Your task to perform on an android device: open app "Google Drive" (install if not already installed) Image 0: 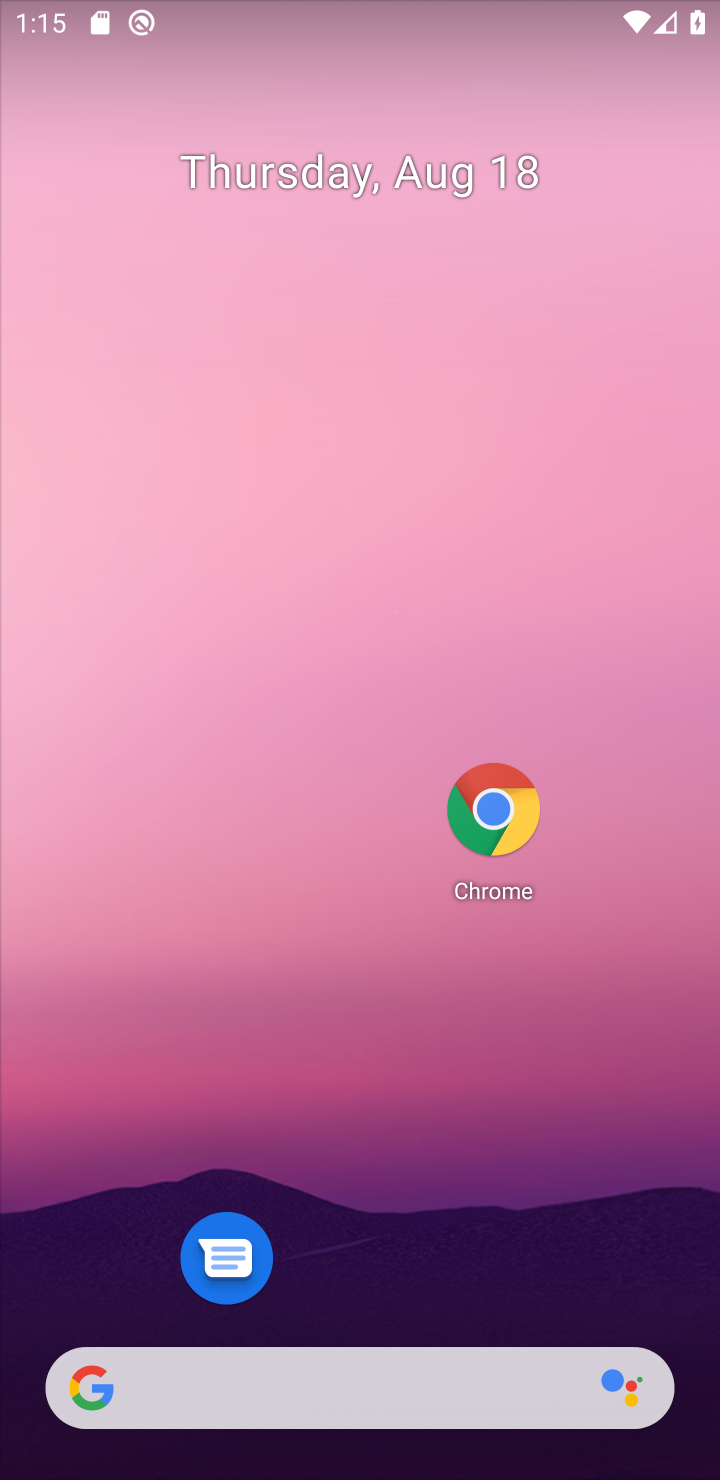
Step 0: drag from (388, 1379) to (396, 741)
Your task to perform on an android device: open app "Google Drive" (install if not already installed) Image 1: 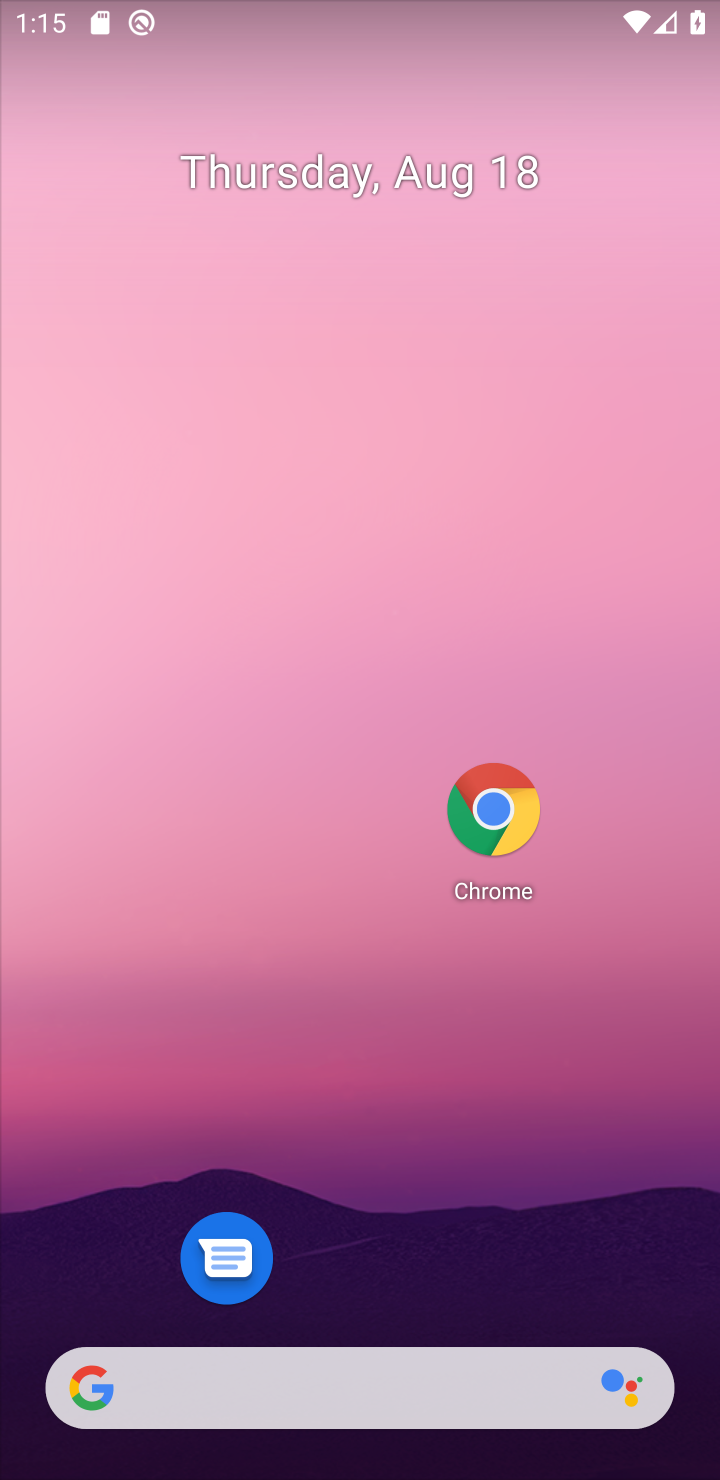
Step 1: drag from (396, 737) to (396, 228)
Your task to perform on an android device: open app "Google Drive" (install if not already installed) Image 2: 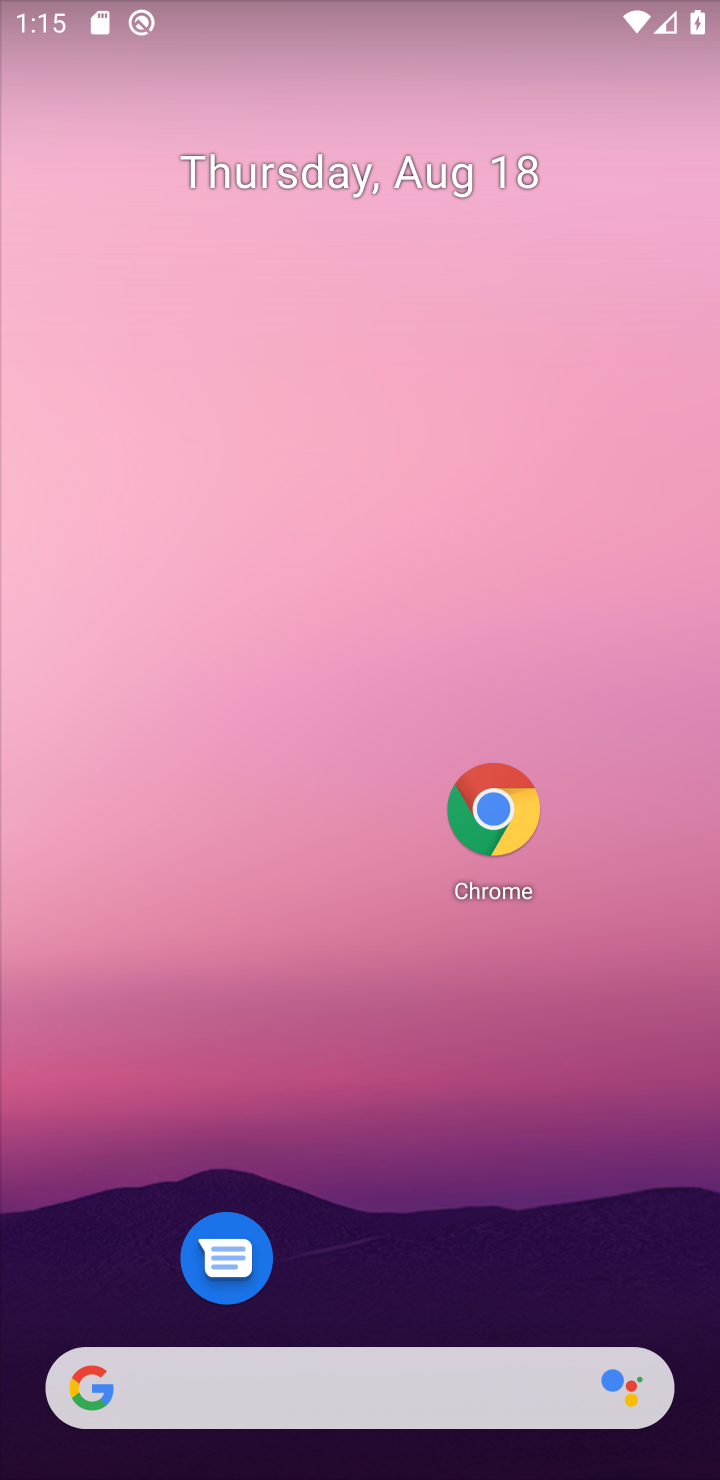
Step 2: drag from (267, 1372) to (513, 175)
Your task to perform on an android device: open app "Google Drive" (install if not already installed) Image 3: 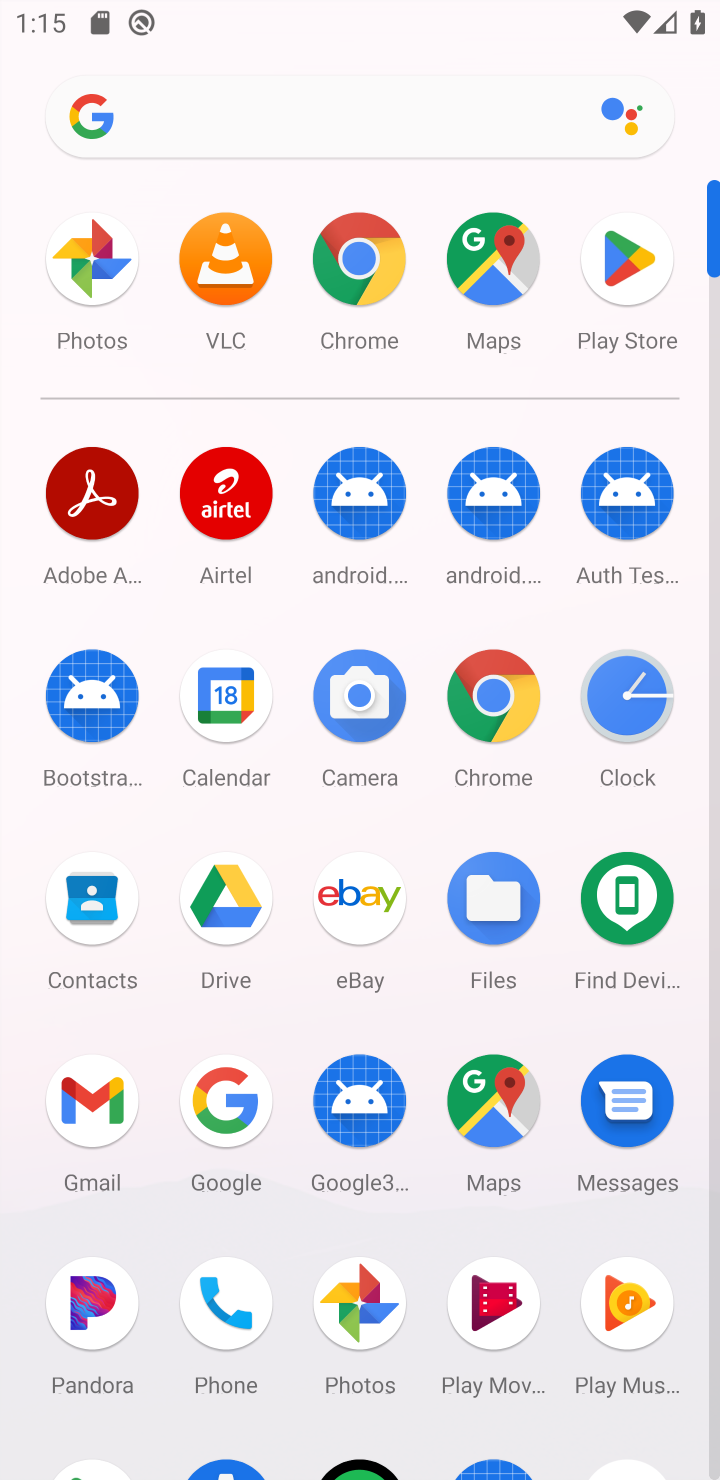
Step 3: click (615, 245)
Your task to perform on an android device: open app "Google Drive" (install if not already installed) Image 4: 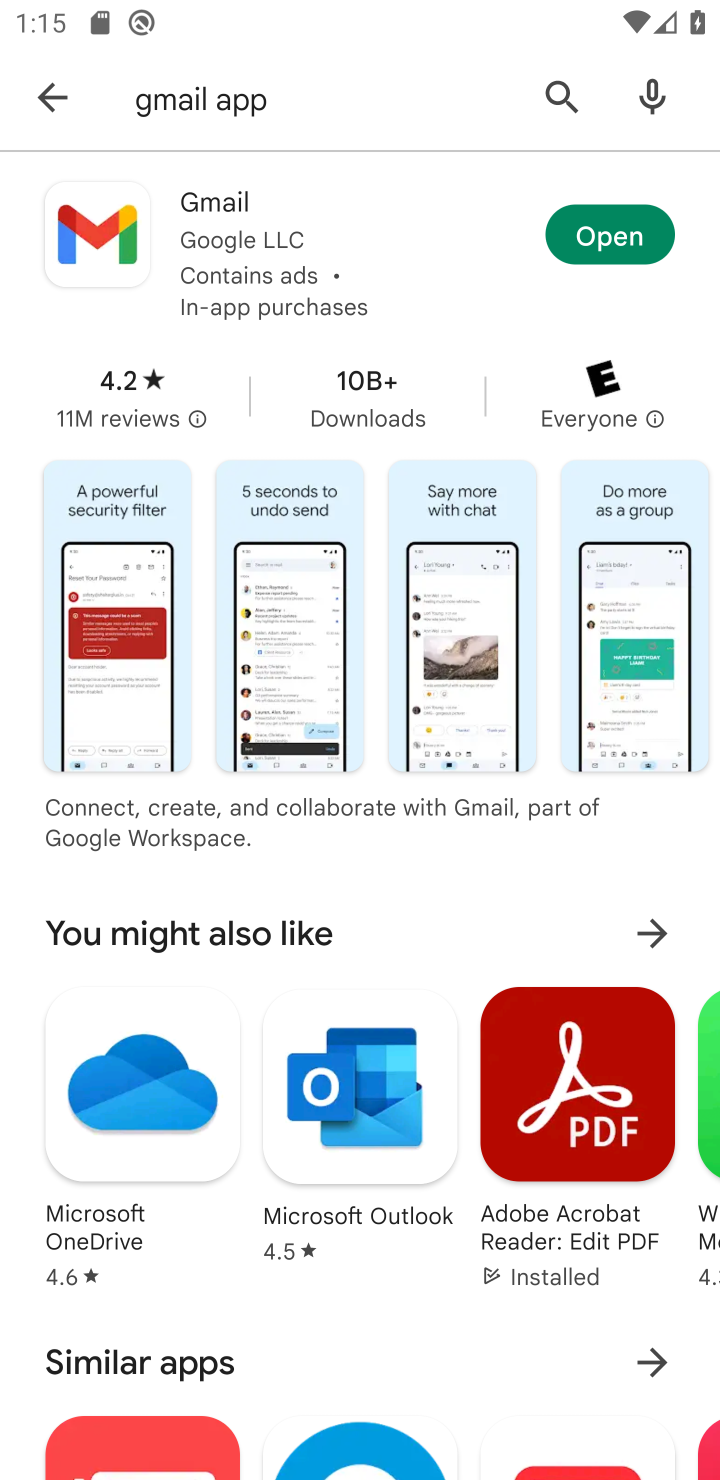
Step 4: click (57, 103)
Your task to perform on an android device: open app "Google Drive" (install if not already installed) Image 5: 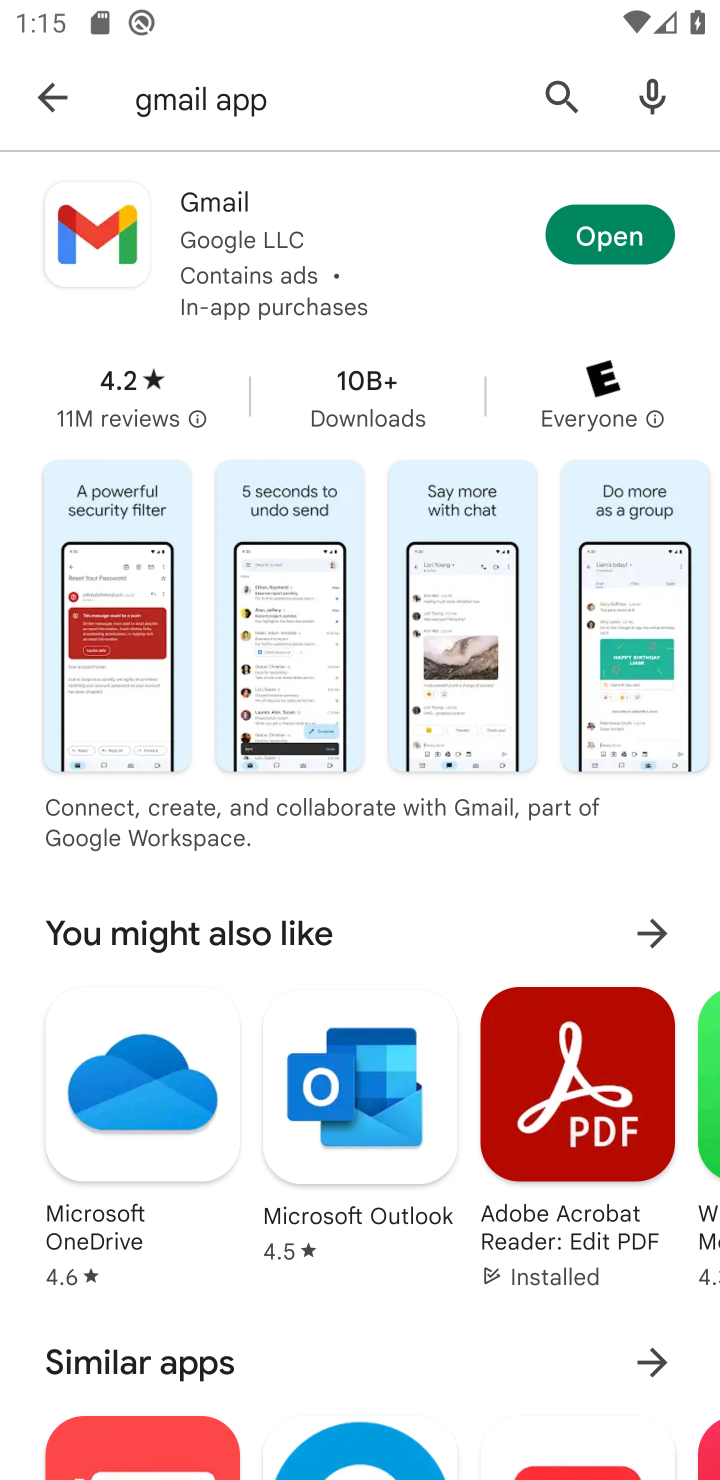
Step 5: click (554, 83)
Your task to perform on an android device: open app "Google Drive" (install if not already installed) Image 6: 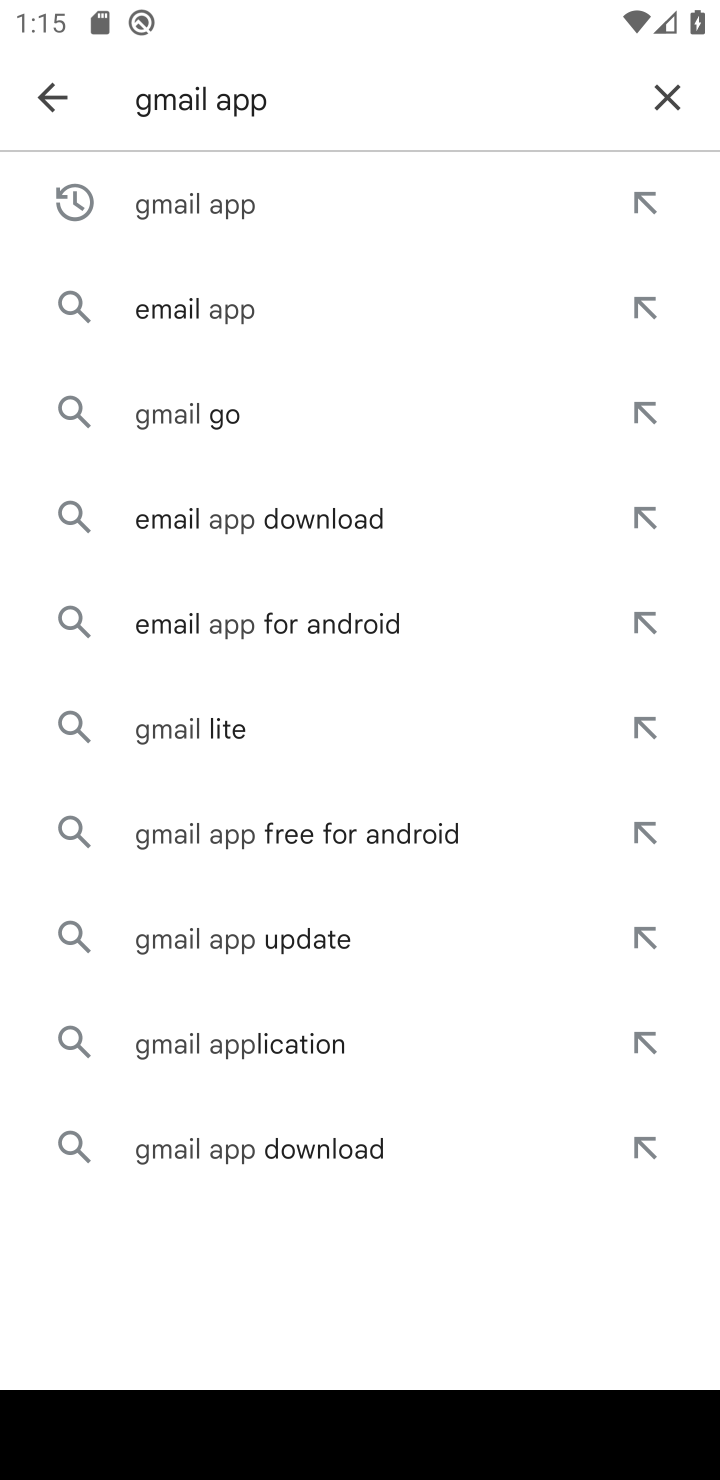
Step 6: click (648, 120)
Your task to perform on an android device: open app "Google Drive" (install if not already installed) Image 7: 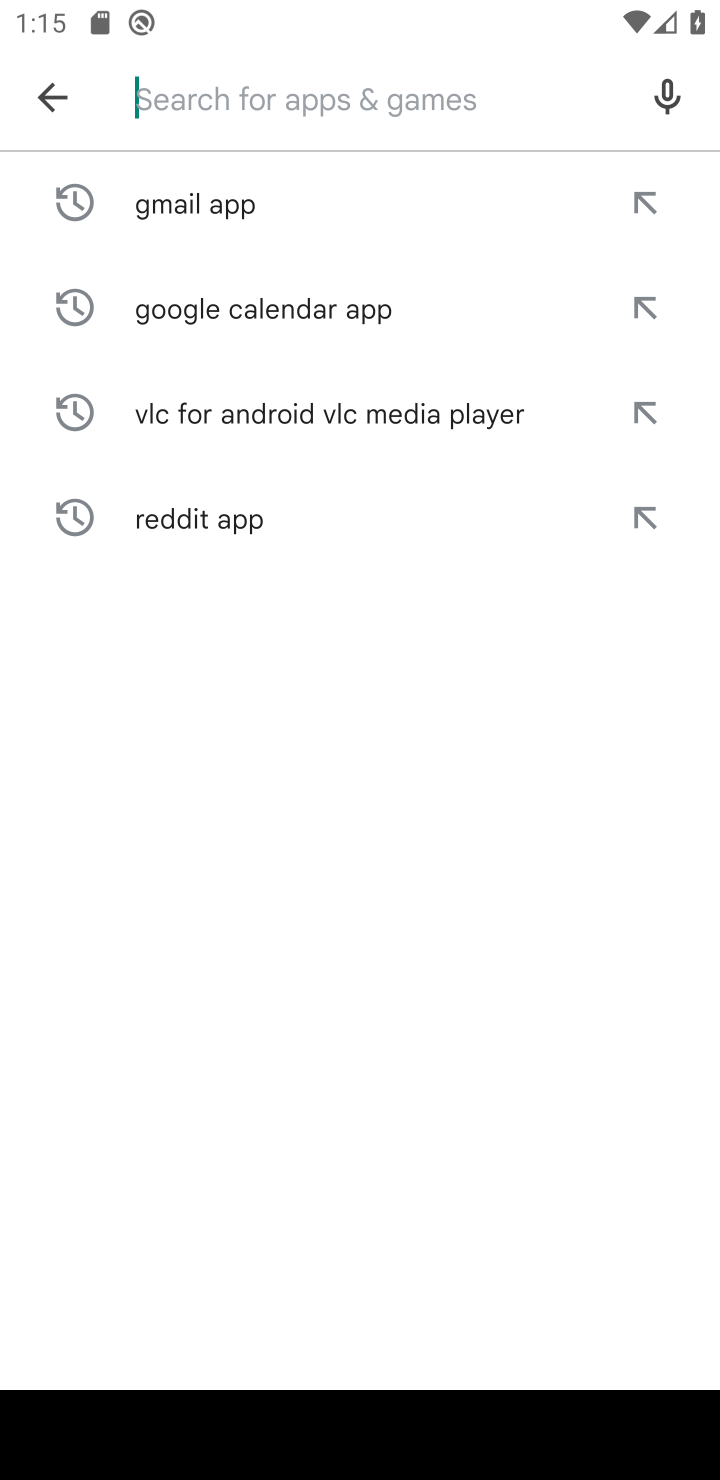
Step 7: click (334, 108)
Your task to perform on an android device: open app "Google Drive" (install if not already installed) Image 8: 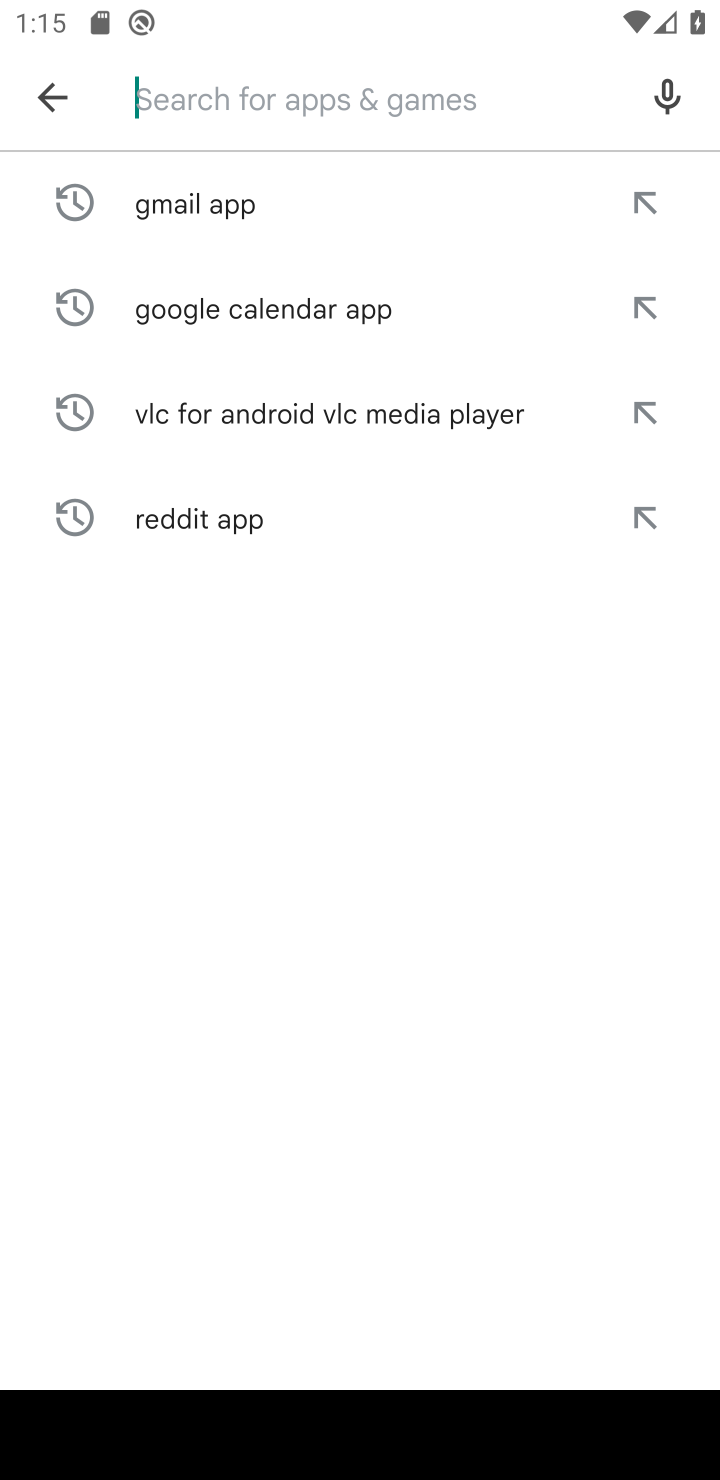
Step 8: type "google drive "
Your task to perform on an android device: open app "Google Drive" (install if not already installed) Image 9: 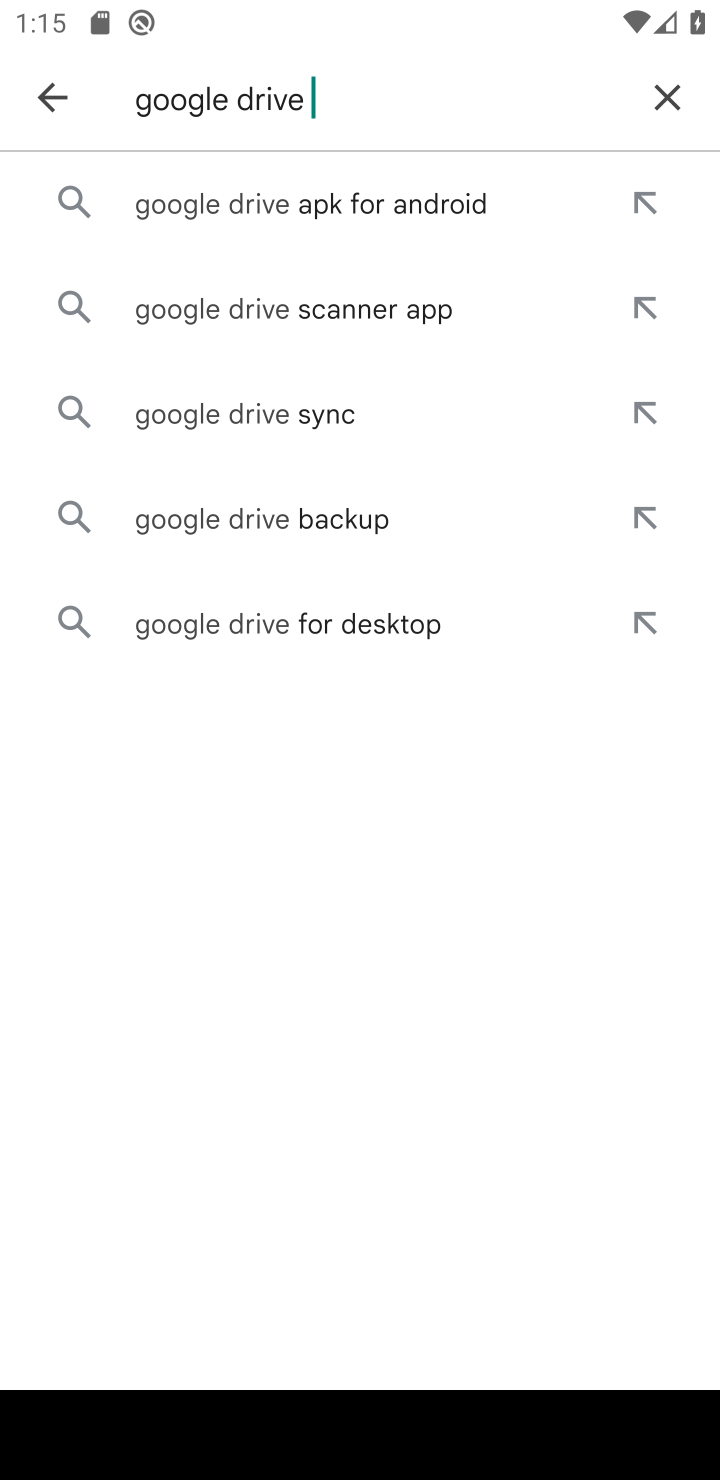
Step 9: click (345, 192)
Your task to perform on an android device: open app "Google Drive" (install if not already installed) Image 10: 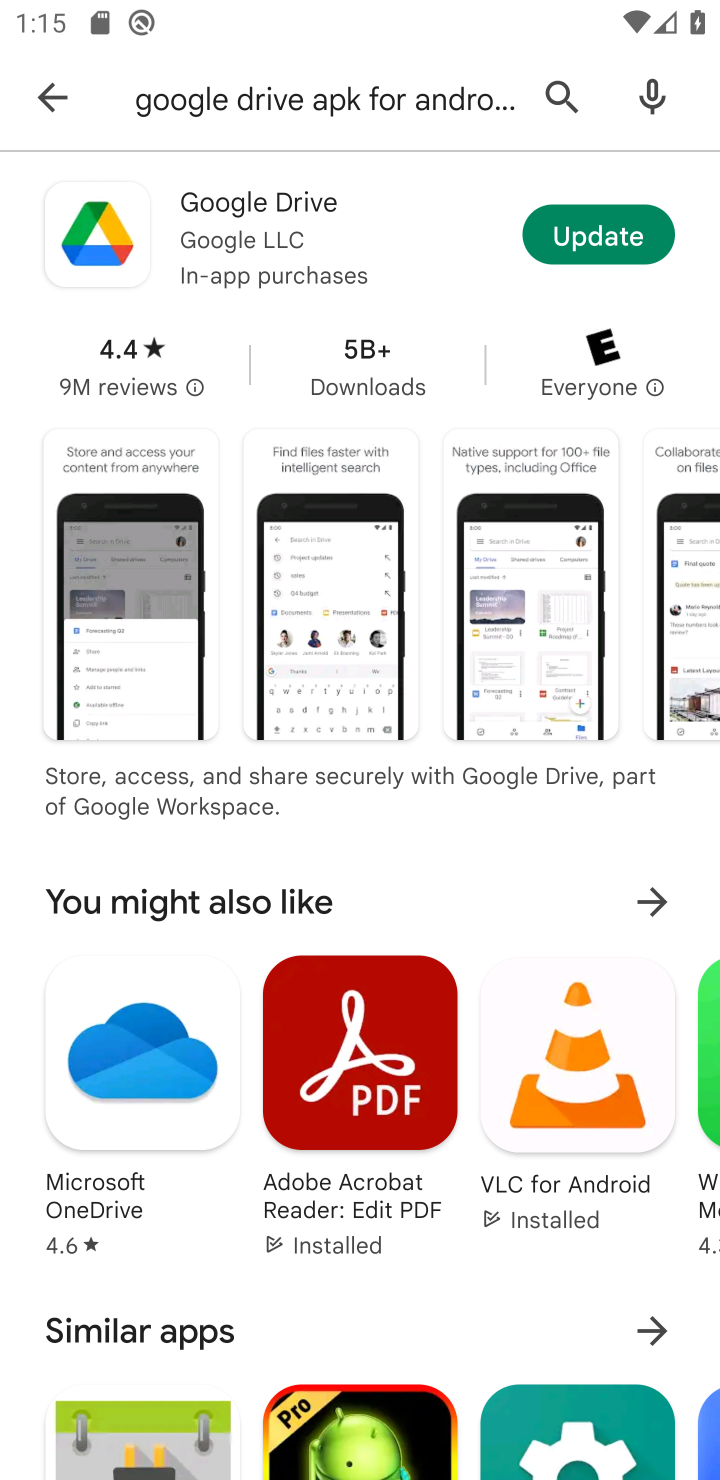
Step 10: click (574, 232)
Your task to perform on an android device: open app "Google Drive" (install if not already installed) Image 11: 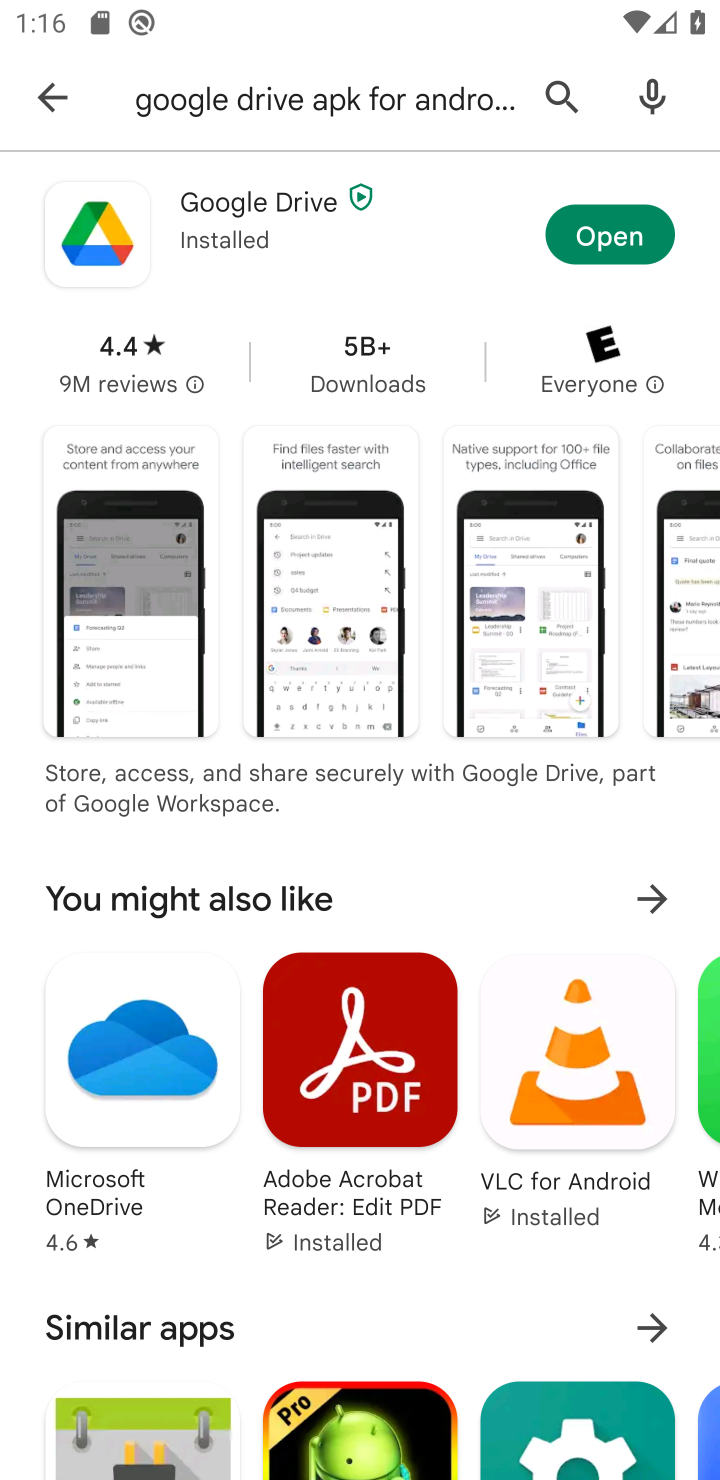
Step 11: click (607, 216)
Your task to perform on an android device: open app "Google Drive" (install if not already installed) Image 12: 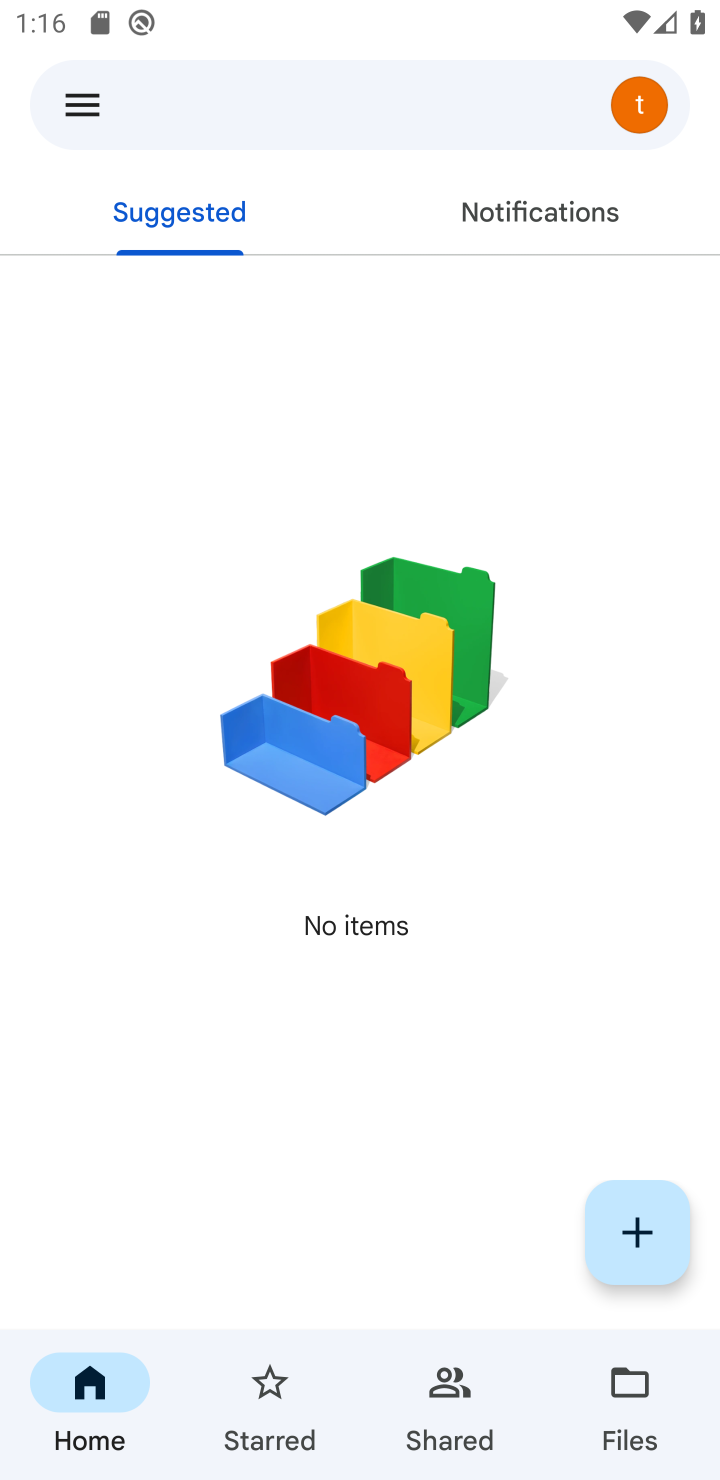
Step 12: task complete